Your task to perform on an android device: Open calendar and show me the fourth week of next month Image 0: 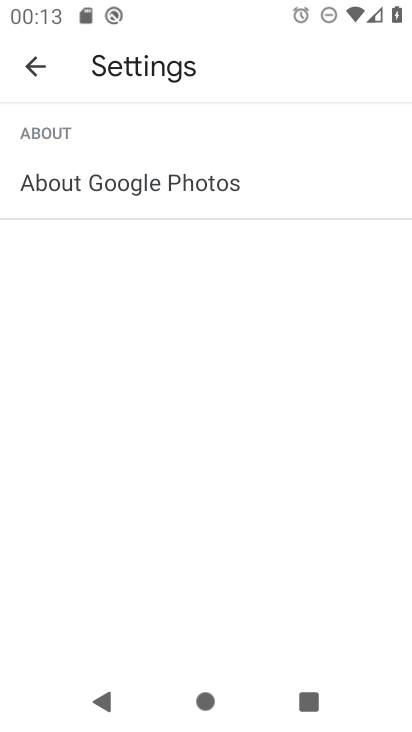
Step 0: press home button
Your task to perform on an android device: Open calendar and show me the fourth week of next month Image 1: 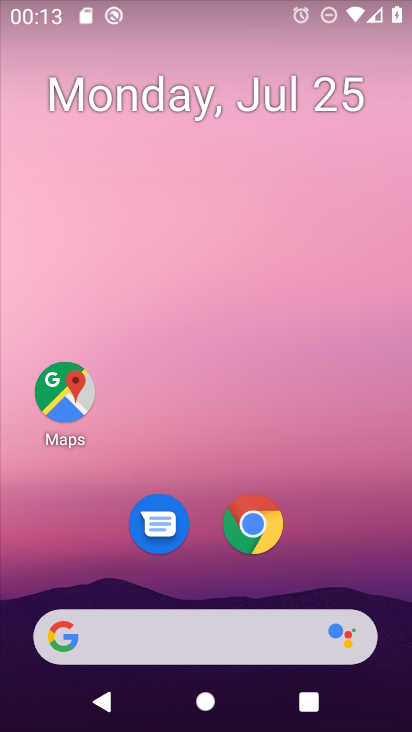
Step 1: drag from (199, 636) to (348, 25)
Your task to perform on an android device: Open calendar and show me the fourth week of next month Image 2: 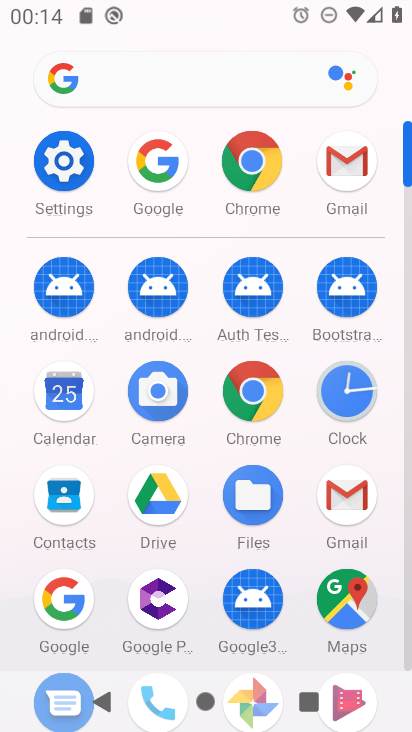
Step 2: click (70, 396)
Your task to perform on an android device: Open calendar and show me the fourth week of next month Image 3: 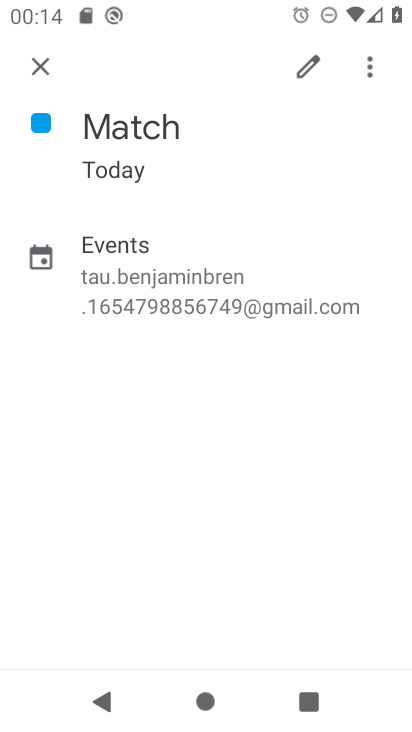
Step 3: click (37, 70)
Your task to perform on an android device: Open calendar and show me the fourth week of next month Image 4: 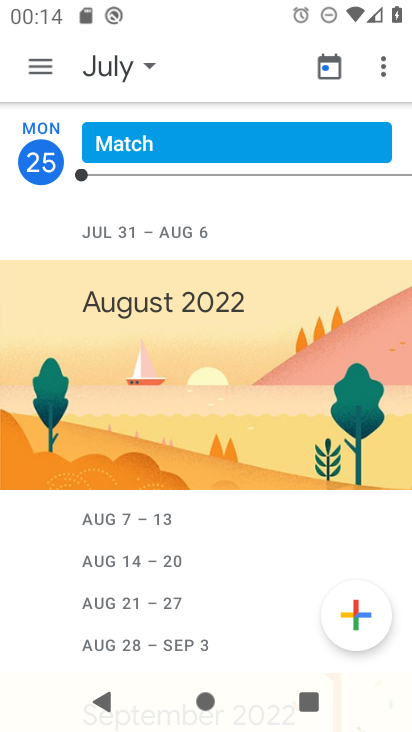
Step 4: click (120, 70)
Your task to perform on an android device: Open calendar and show me the fourth week of next month Image 5: 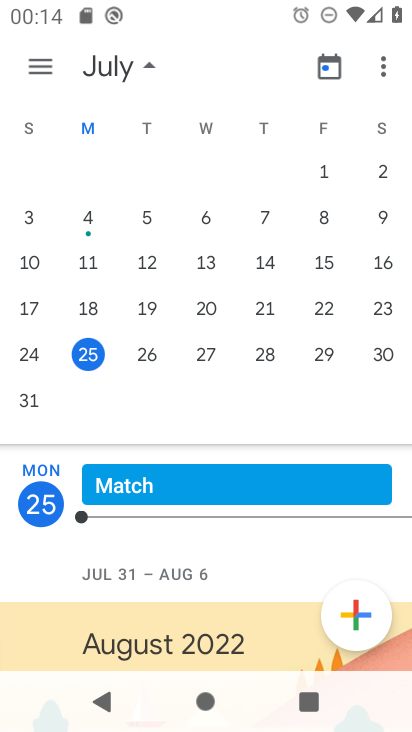
Step 5: drag from (357, 330) to (3, 315)
Your task to perform on an android device: Open calendar and show me the fourth week of next month Image 6: 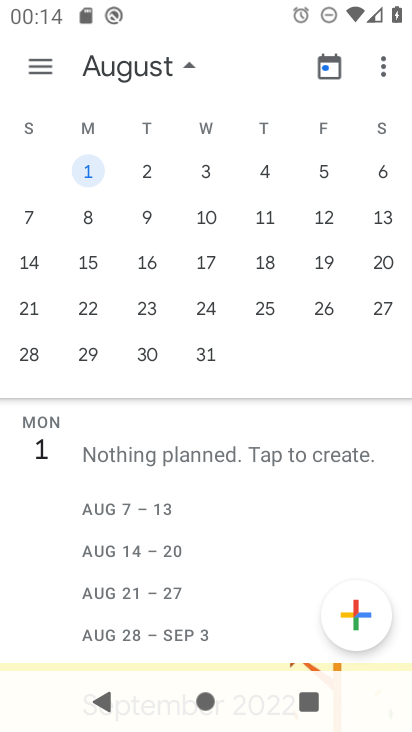
Step 6: click (28, 306)
Your task to perform on an android device: Open calendar and show me the fourth week of next month Image 7: 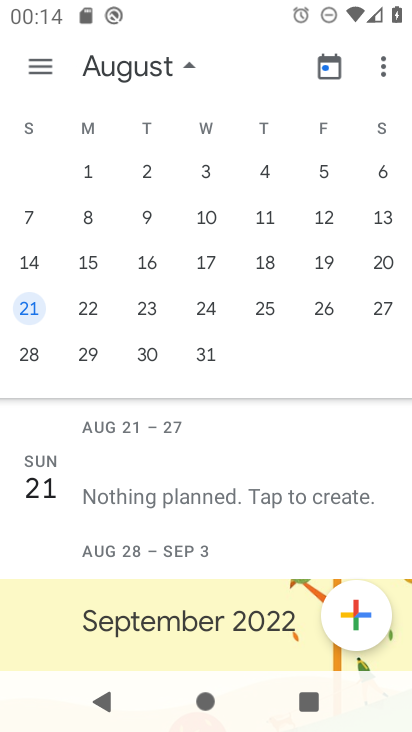
Step 7: click (36, 69)
Your task to perform on an android device: Open calendar and show me the fourth week of next month Image 8: 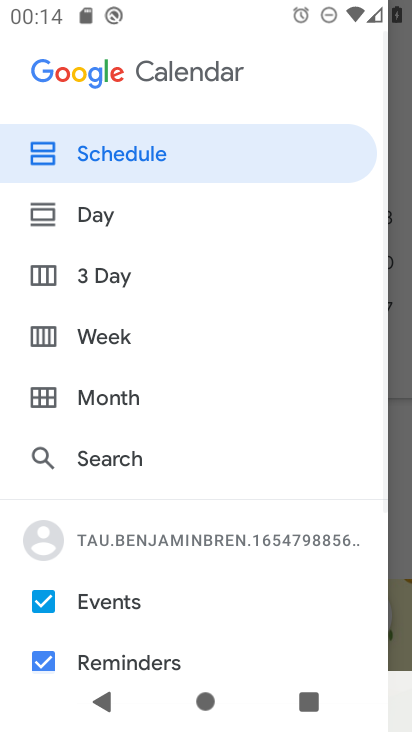
Step 8: click (106, 336)
Your task to perform on an android device: Open calendar and show me the fourth week of next month Image 9: 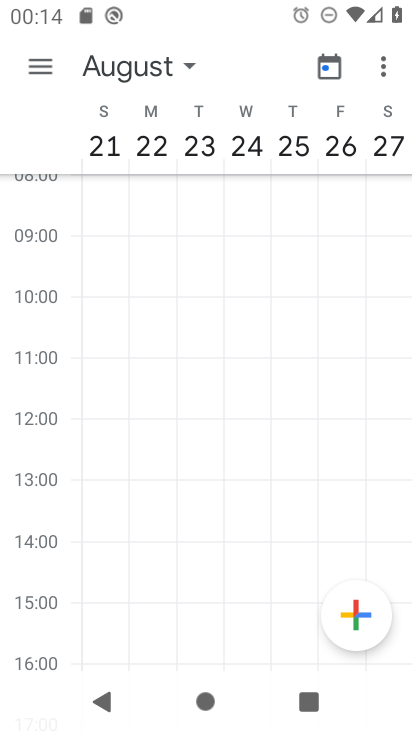
Step 9: task complete